Your task to perform on an android device: Go to notification settings Image 0: 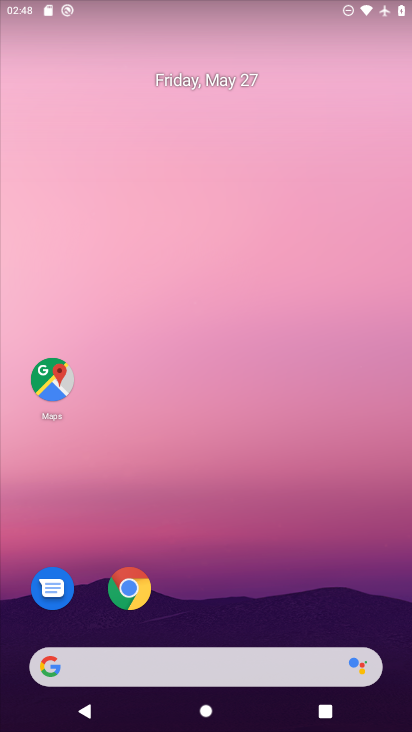
Step 0: drag from (360, 605) to (297, 140)
Your task to perform on an android device: Go to notification settings Image 1: 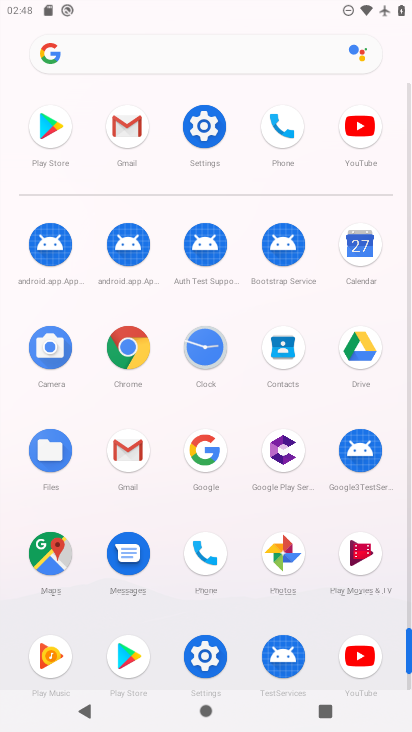
Step 1: click (203, 653)
Your task to perform on an android device: Go to notification settings Image 2: 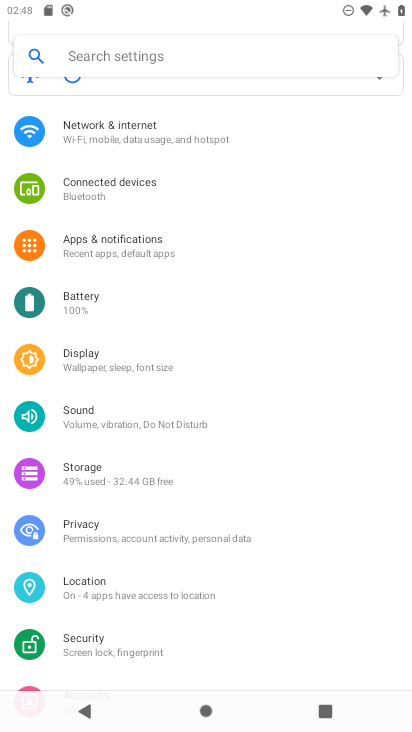
Step 2: click (144, 245)
Your task to perform on an android device: Go to notification settings Image 3: 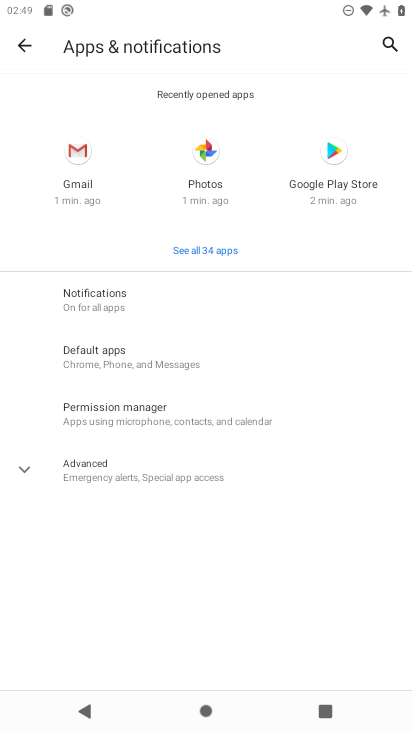
Step 3: click (112, 305)
Your task to perform on an android device: Go to notification settings Image 4: 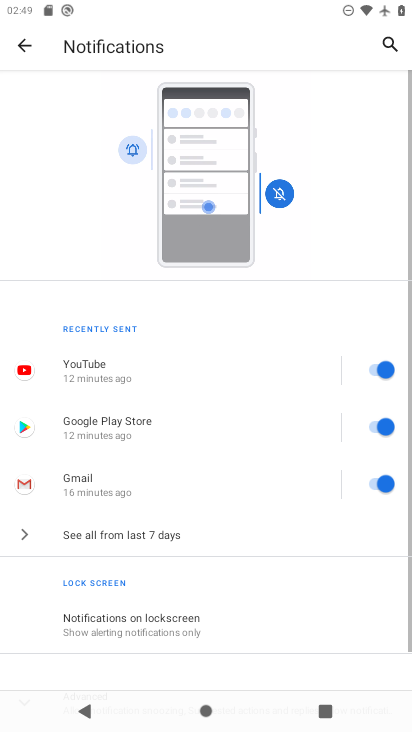
Step 4: drag from (248, 533) to (324, 101)
Your task to perform on an android device: Go to notification settings Image 5: 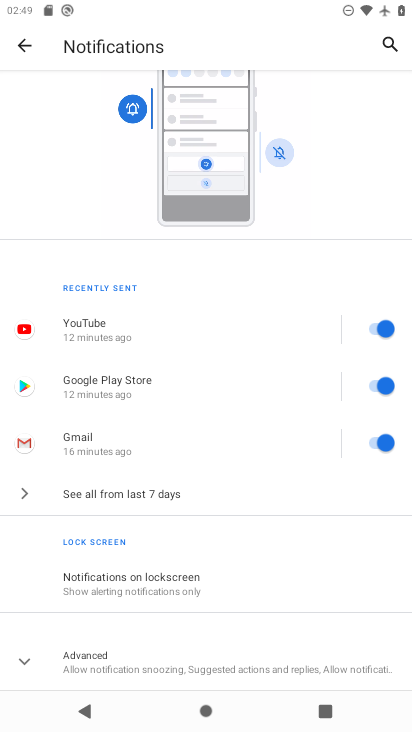
Step 5: click (24, 659)
Your task to perform on an android device: Go to notification settings Image 6: 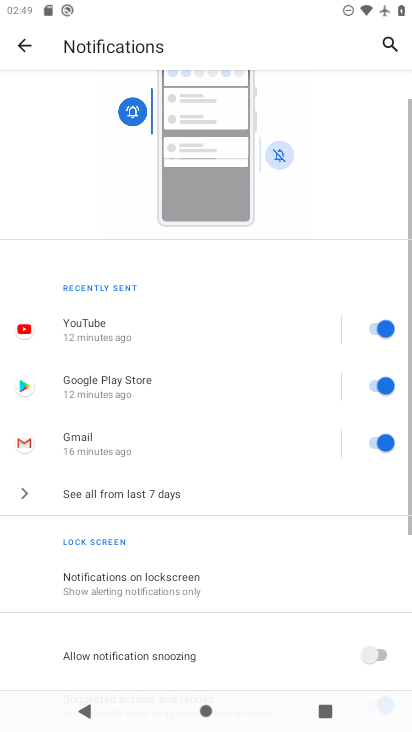
Step 6: task complete